Your task to perform on an android device: turn on location history Image 0: 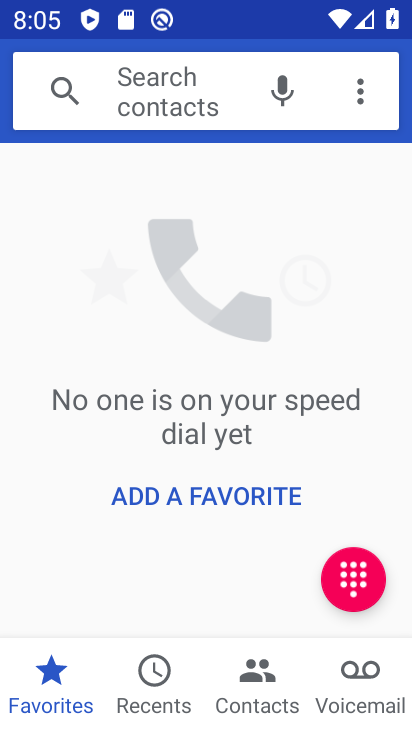
Step 0: press home button
Your task to perform on an android device: turn on location history Image 1: 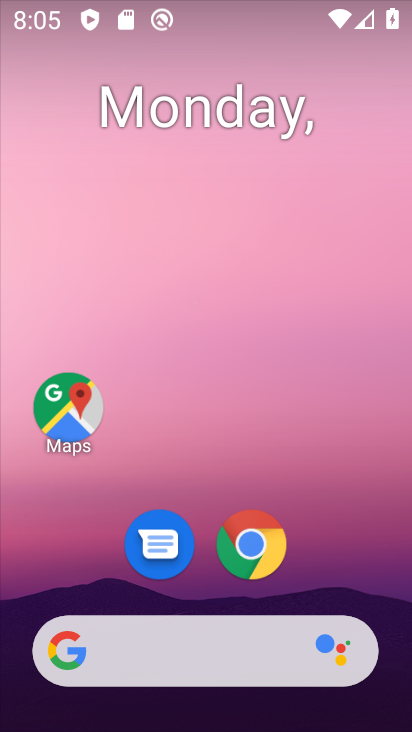
Step 1: drag from (224, 622) to (225, 4)
Your task to perform on an android device: turn on location history Image 2: 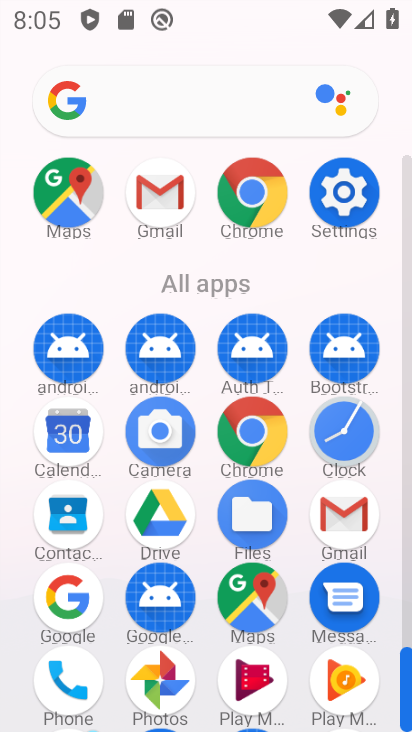
Step 2: click (355, 198)
Your task to perform on an android device: turn on location history Image 3: 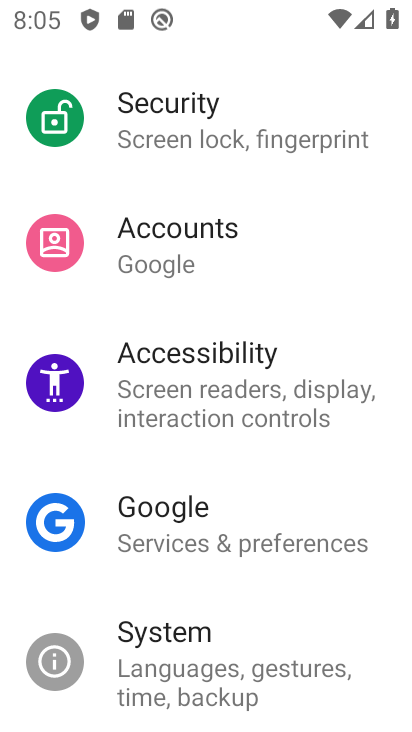
Step 3: drag from (240, 173) to (204, 546)
Your task to perform on an android device: turn on location history Image 4: 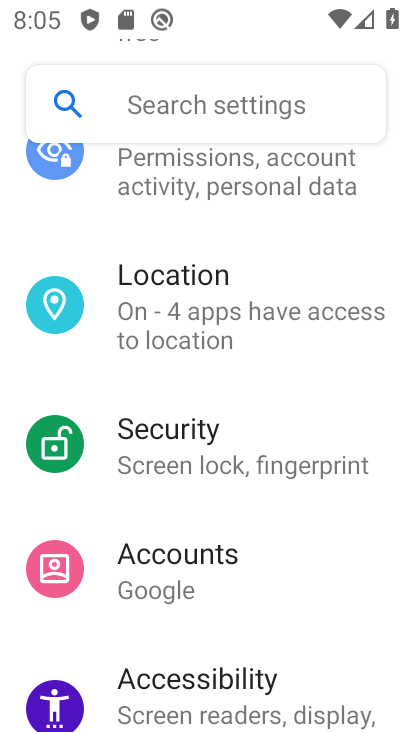
Step 4: click (165, 330)
Your task to perform on an android device: turn on location history Image 5: 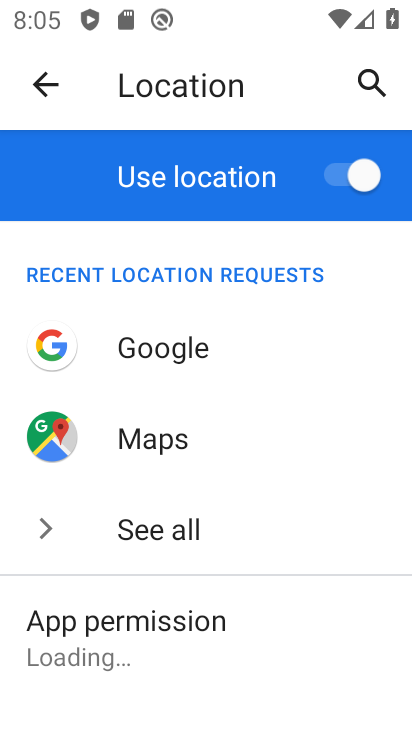
Step 5: drag from (160, 629) to (111, 190)
Your task to perform on an android device: turn on location history Image 6: 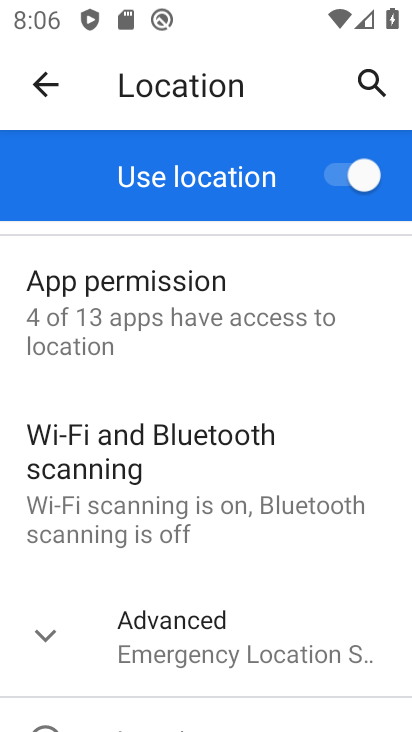
Step 6: click (233, 637)
Your task to perform on an android device: turn on location history Image 7: 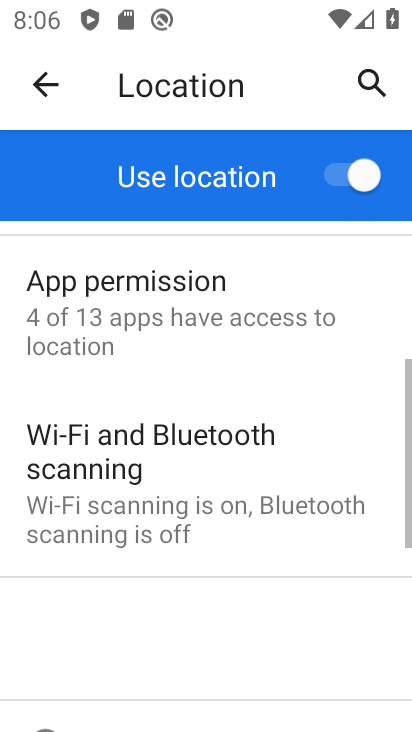
Step 7: drag from (233, 637) to (175, 233)
Your task to perform on an android device: turn on location history Image 8: 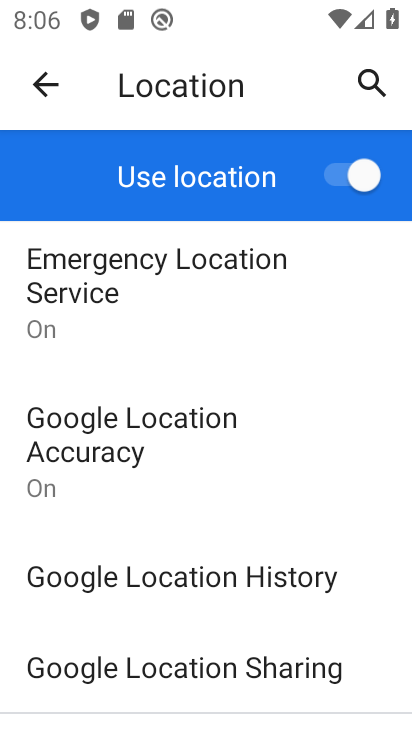
Step 8: click (244, 585)
Your task to perform on an android device: turn on location history Image 9: 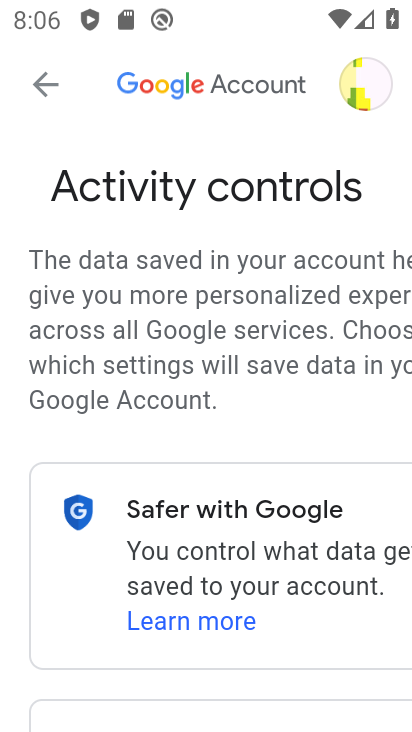
Step 9: drag from (222, 662) to (97, 9)
Your task to perform on an android device: turn on location history Image 10: 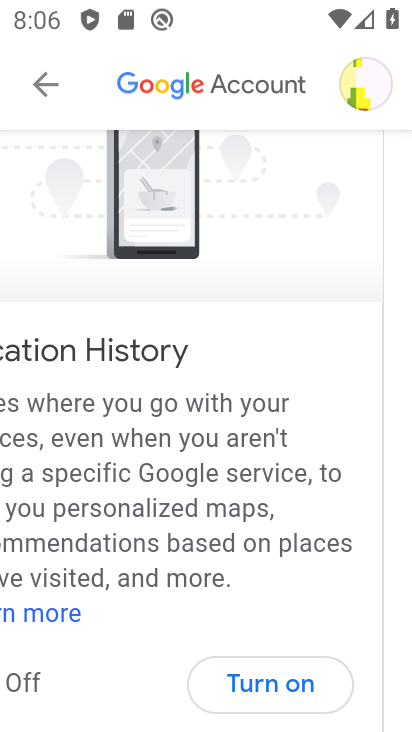
Step 10: click (288, 666)
Your task to perform on an android device: turn on location history Image 11: 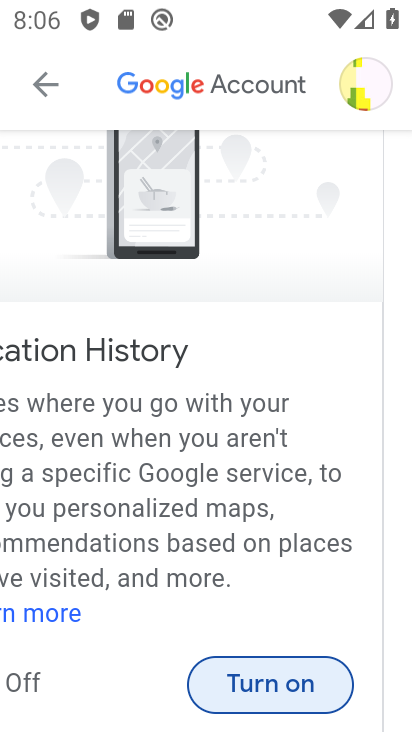
Step 11: click (307, 674)
Your task to perform on an android device: turn on location history Image 12: 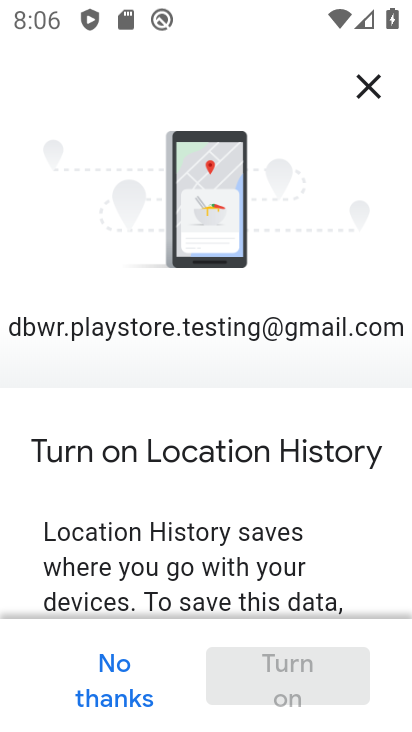
Step 12: drag from (262, 544) to (160, 6)
Your task to perform on an android device: turn on location history Image 13: 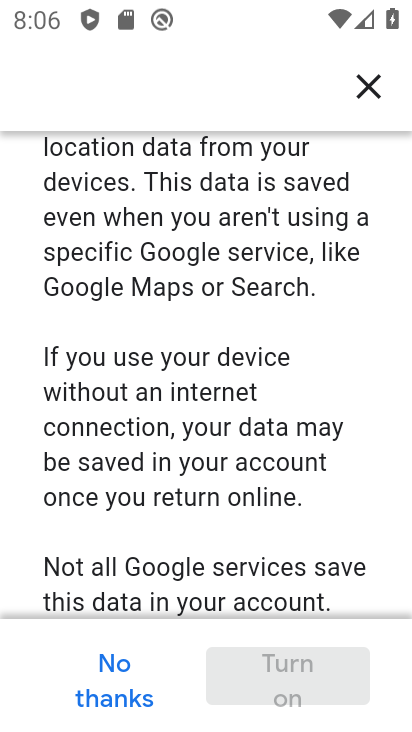
Step 13: drag from (235, 487) to (205, 20)
Your task to perform on an android device: turn on location history Image 14: 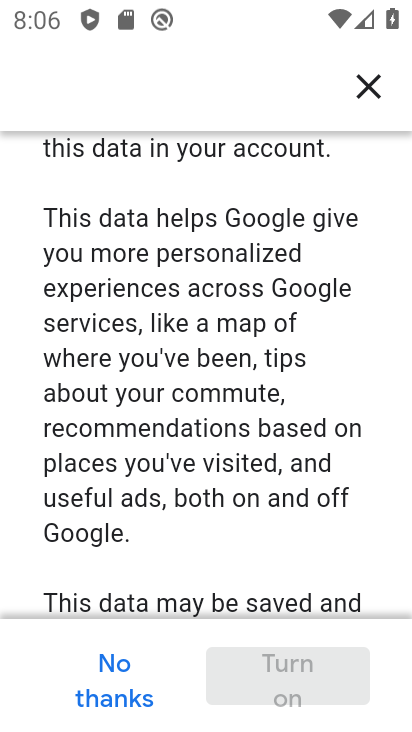
Step 14: drag from (273, 527) to (188, 15)
Your task to perform on an android device: turn on location history Image 15: 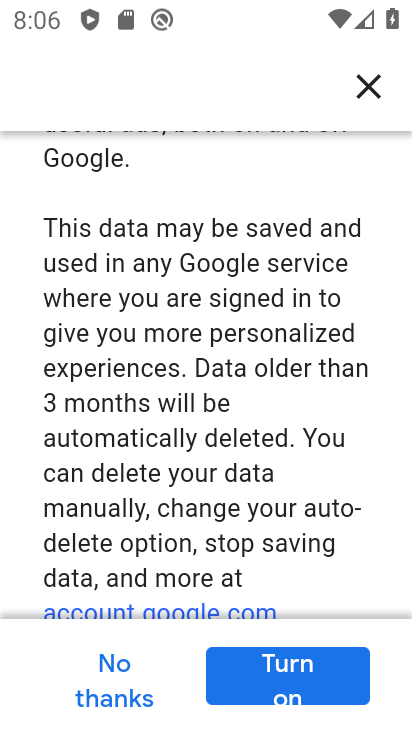
Step 15: click (289, 661)
Your task to perform on an android device: turn on location history Image 16: 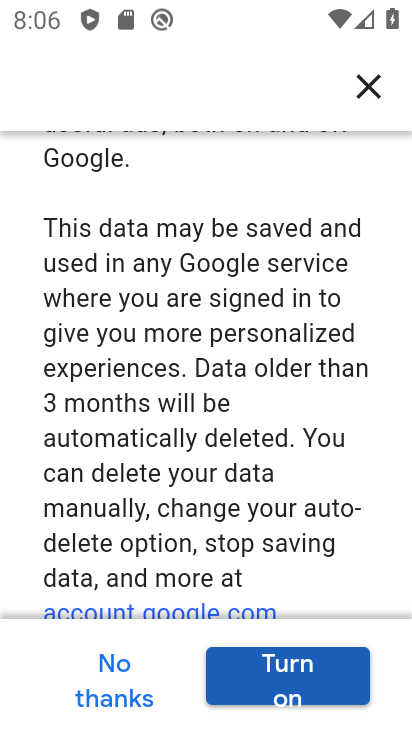
Step 16: click (351, 670)
Your task to perform on an android device: turn on location history Image 17: 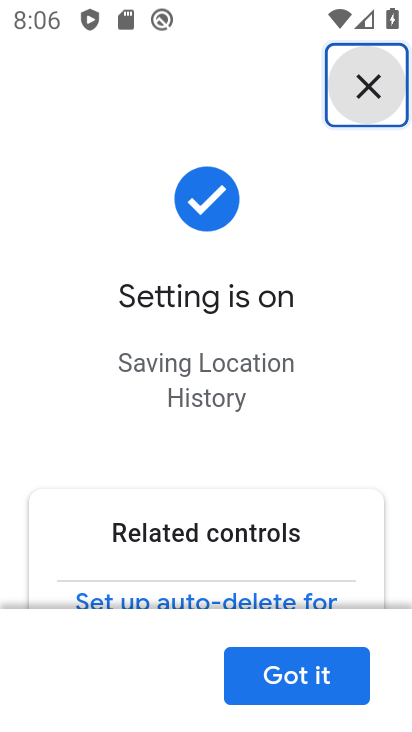
Step 17: click (333, 673)
Your task to perform on an android device: turn on location history Image 18: 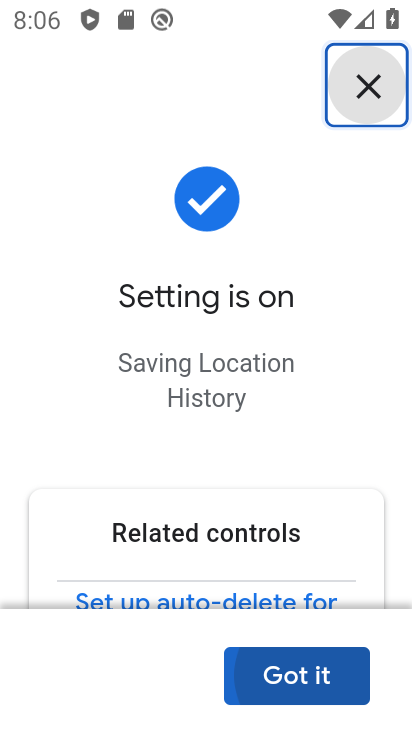
Step 18: task complete